Your task to perform on an android device: Toggle the flashlight Image 0: 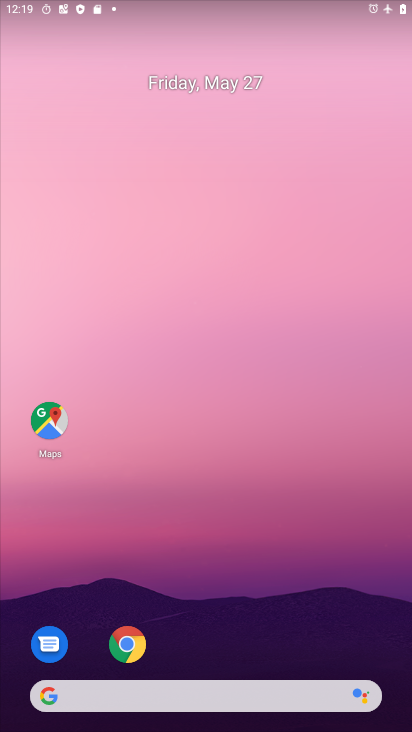
Step 0: drag from (216, 626) to (257, 107)
Your task to perform on an android device: Toggle the flashlight Image 1: 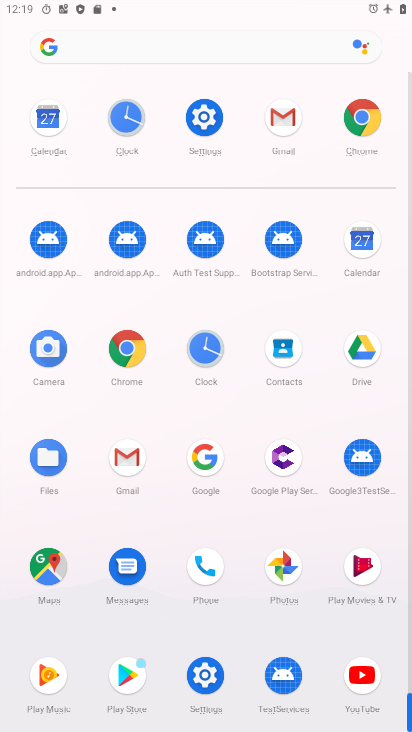
Step 1: click (190, 122)
Your task to perform on an android device: Toggle the flashlight Image 2: 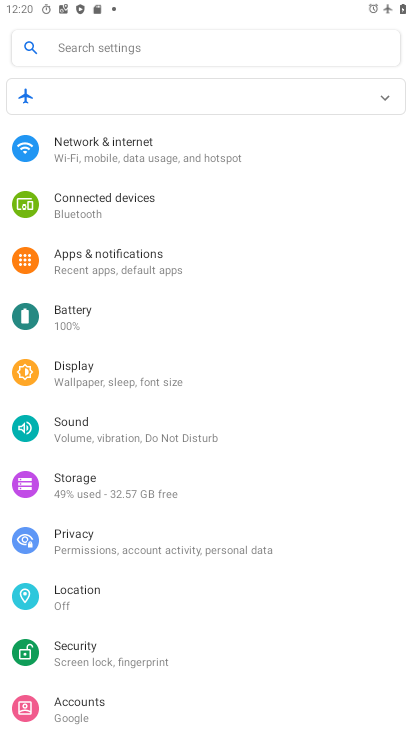
Step 2: task complete